Your task to perform on an android device: Clear the shopping cart on walmart.com. Add "alienware aurora" to the cart on walmart.com Image 0: 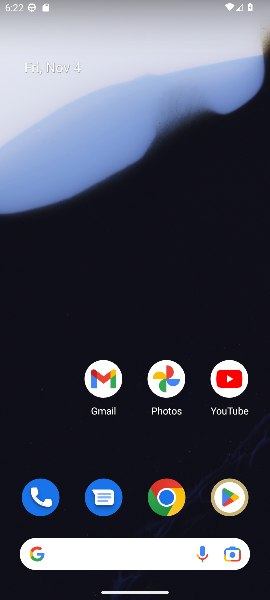
Step 0: click (168, 499)
Your task to perform on an android device: Clear the shopping cart on walmart.com. Add "alienware aurora" to the cart on walmart.com Image 1: 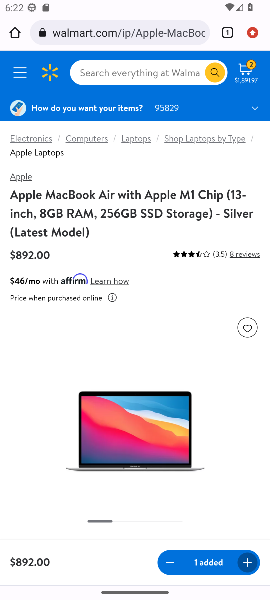
Step 1: click (250, 74)
Your task to perform on an android device: Clear the shopping cart on walmart.com. Add "alienware aurora" to the cart on walmart.com Image 2: 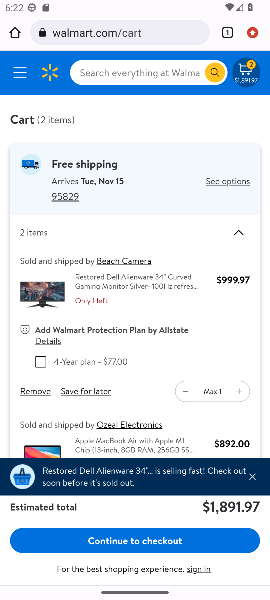
Step 2: click (40, 389)
Your task to perform on an android device: Clear the shopping cart on walmart.com. Add "alienware aurora" to the cart on walmart.com Image 3: 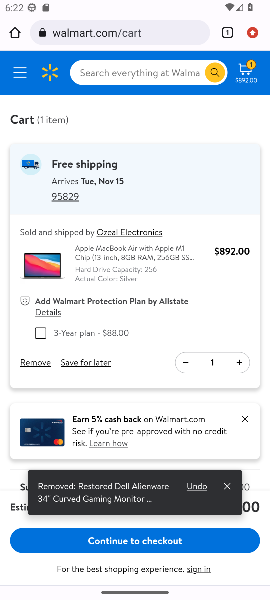
Step 3: click (42, 365)
Your task to perform on an android device: Clear the shopping cart on walmart.com. Add "alienware aurora" to the cart on walmart.com Image 4: 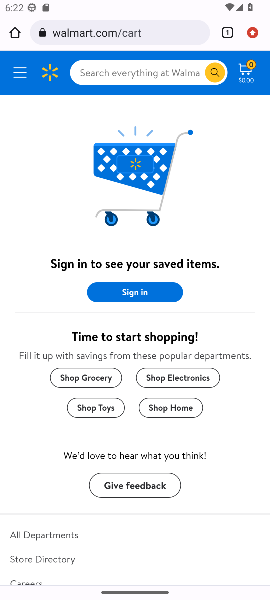
Step 4: click (146, 78)
Your task to perform on an android device: Clear the shopping cart on walmart.com. Add "alienware aurora" to the cart on walmart.com Image 5: 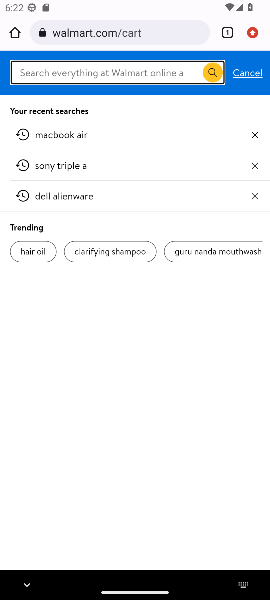
Step 5: type "alienware aurora"
Your task to perform on an android device: Clear the shopping cart on walmart.com. Add "alienware aurora" to the cart on walmart.com Image 6: 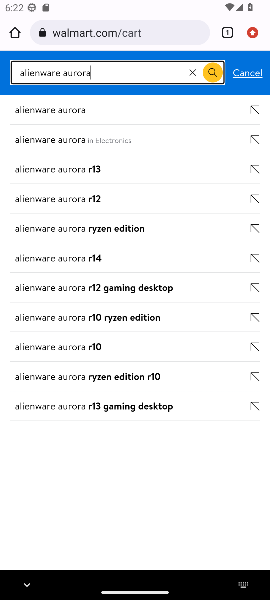
Step 6: click (26, 112)
Your task to perform on an android device: Clear the shopping cart on walmart.com. Add "alienware aurora" to the cart on walmart.com Image 7: 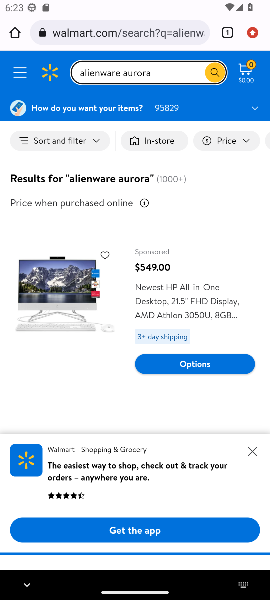
Step 7: drag from (72, 361) to (85, 250)
Your task to perform on an android device: Clear the shopping cart on walmart.com. Add "alienware aurora" to the cart on walmart.com Image 8: 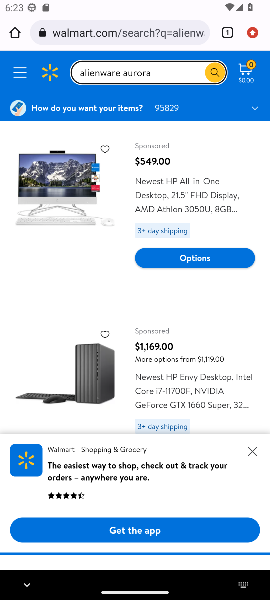
Step 8: drag from (80, 327) to (89, 152)
Your task to perform on an android device: Clear the shopping cart on walmart.com. Add "alienware aurora" to the cart on walmart.com Image 9: 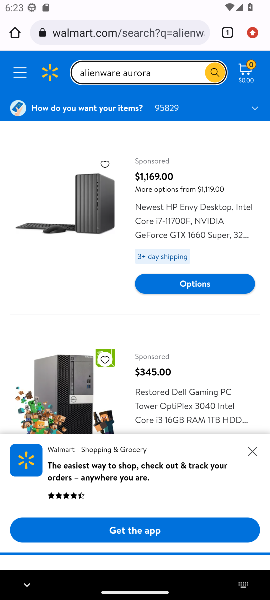
Step 9: drag from (101, 393) to (113, 229)
Your task to perform on an android device: Clear the shopping cart on walmart.com. Add "alienware aurora" to the cart on walmart.com Image 10: 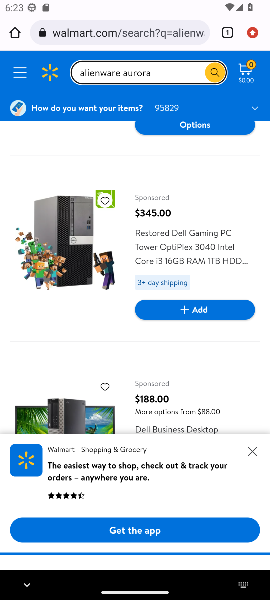
Step 10: drag from (104, 331) to (104, 189)
Your task to perform on an android device: Clear the shopping cart on walmart.com. Add "alienware aurora" to the cart on walmart.com Image 11: 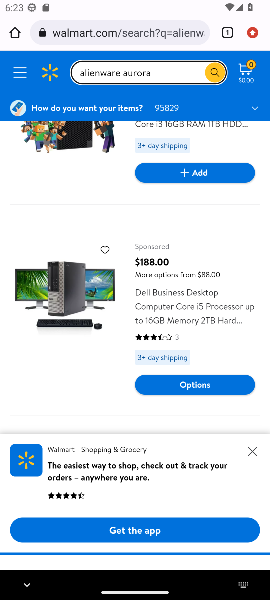
Step 11: drag from (101, 351) to (116, 178)
Your task to perform on an android device: Clear the shopping cart on walmart.com. Add "alienware aurora" to the cart on walmart.com Image 12: 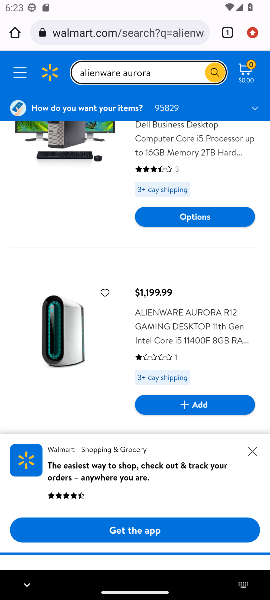
Step 12: click (145, 335)
Your task to perform on an android device: Clear the shopping cart on walmart.com. Add "alienware aurora" to the cart on walmart.com Image 13: 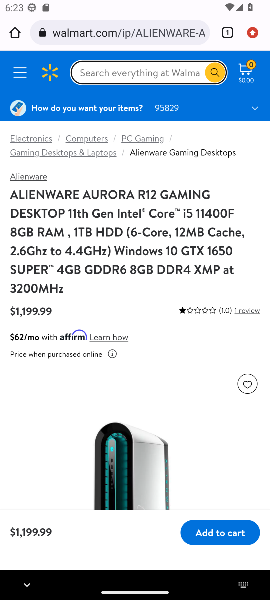
Step 13: drag from (139, 345) to (159, 231)
Your task to perform on an android device: Clear the shopping cart on walmart.com. Add "alienware aurora" to the cart on walmart.com Image 14: 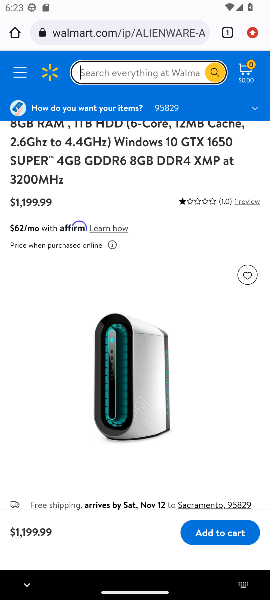
Step 14: click (220, 529)
Your task to perform on an android device: Clear the shopping cart on walmart.com. Add "alienware aurora" to the cart on walmart.com Image 15: 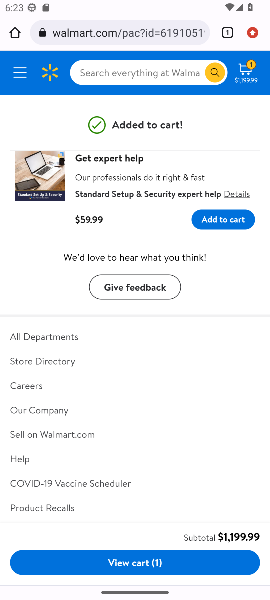
Step 15: task complete